Your task to perform on an android device: turn on improve location accuracy Image 0: 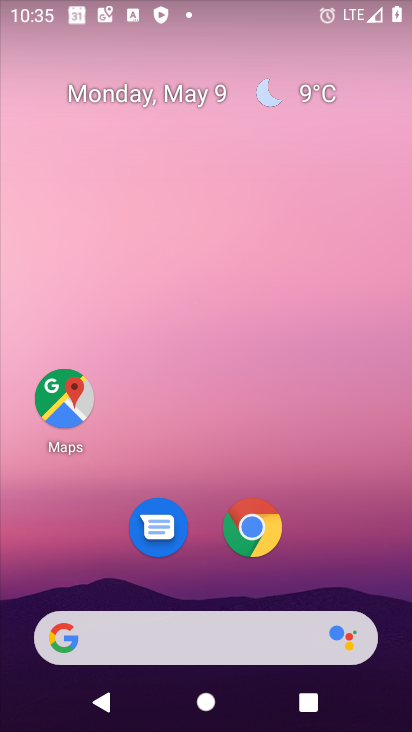
Step 0: drag from (395, 628) to (355, 188)
Your task to perform on an android device: turn on improve location accuracy Image 1: 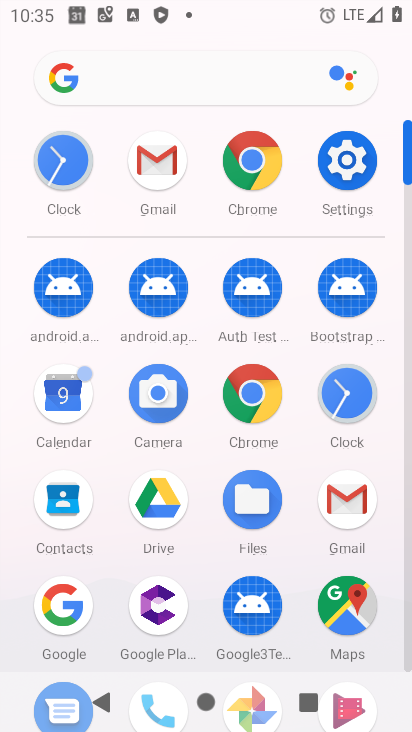
Step 1: click (405, 656)
Your task to perform on an android device: turn on improve location accuracy Image 2: 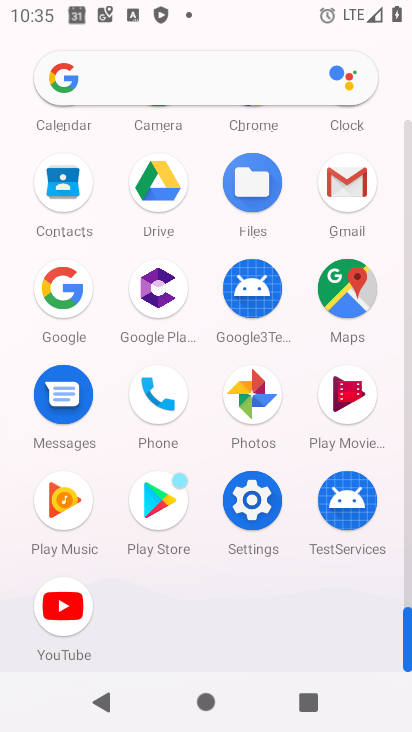
Step 2: click (253, 499)
Your task to perform on an android device: turn on improve location accuracy Image 3: 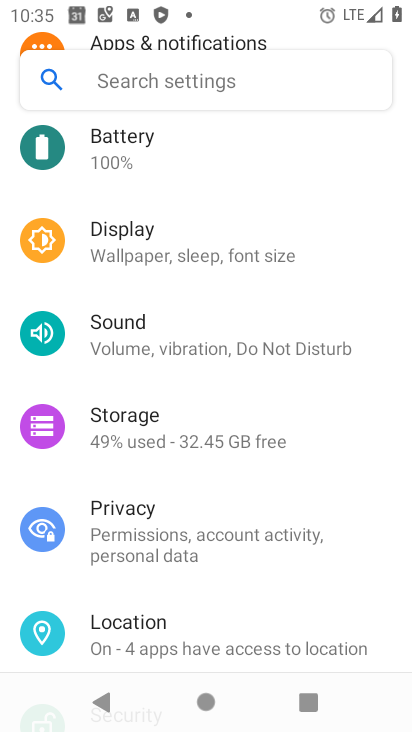
Step 3: drag from (342, 617) to (343, 241)
Your task to perform on an android device: turn on improve location accuracy Image 4: 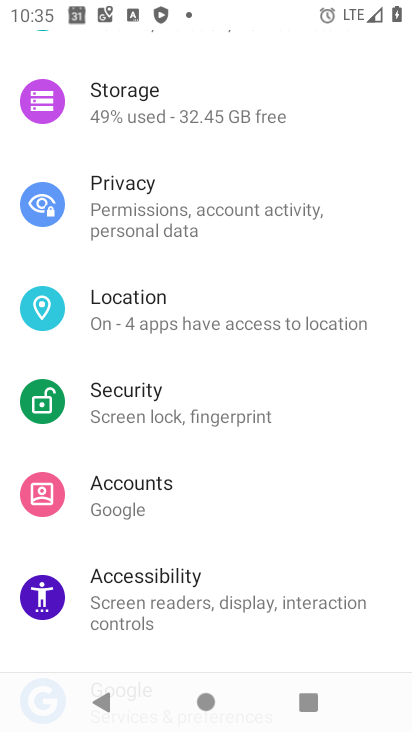
Step 4: click (131, 315)
Your task to perform on an android device: turn on improve location accuracy Image 5: 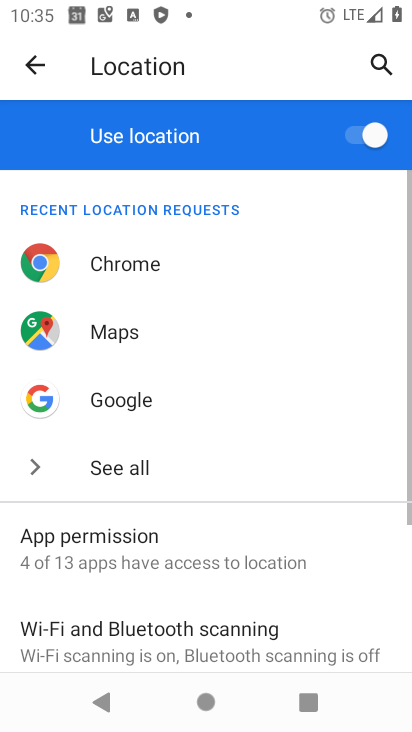
Step 5: drag from (296, 537) to (272, 245)
Your task to perform on an android device: turn on improve location accuracy Image 6: 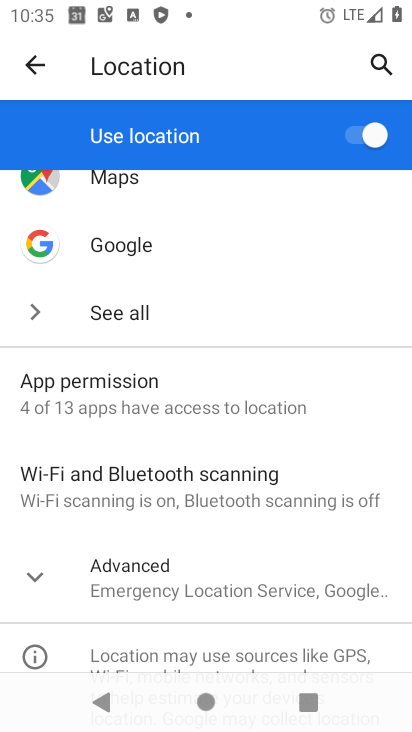
Step 6: click (28, 585)
Your task to perform on an android device: turn on improve location accuracy Image 7: 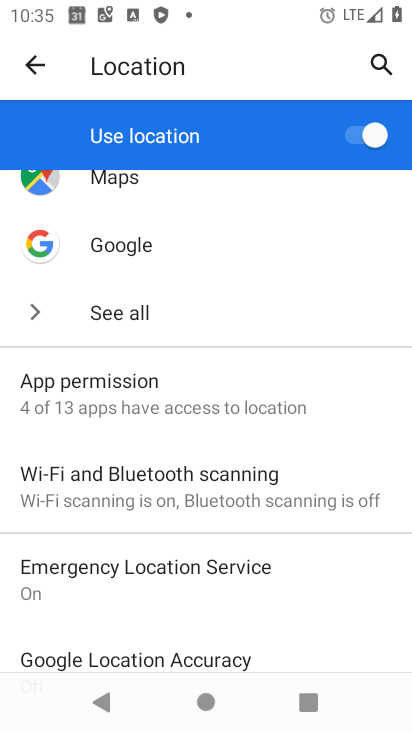
Step 7: drag from (320, 614) to (346, 216)
Your task to perform on an android device: turn on improve location accuracy Image 8: 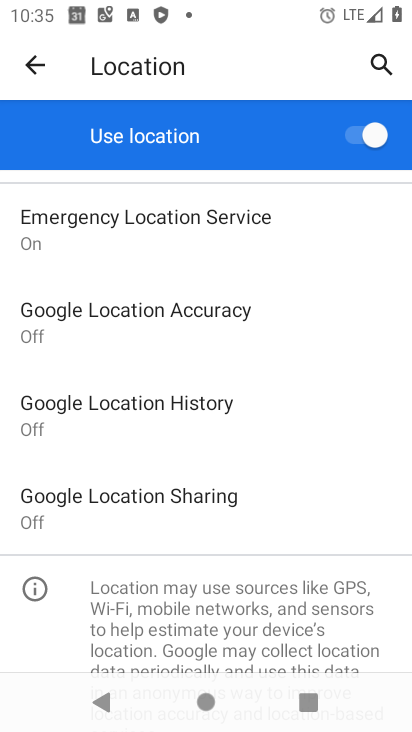
Step 8: click (41, 314)
Your task to perform on an android device: turn on improve location accuracy Image 9: 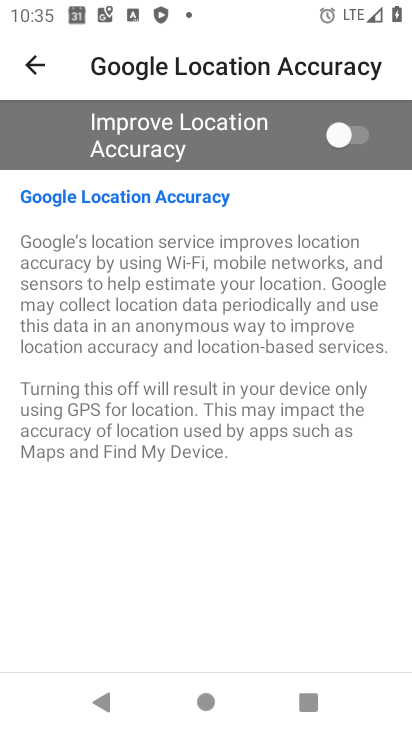
Step 9: click (359, 131)
Your task to perform on an android device: turn on improve location accuracy Image 10: 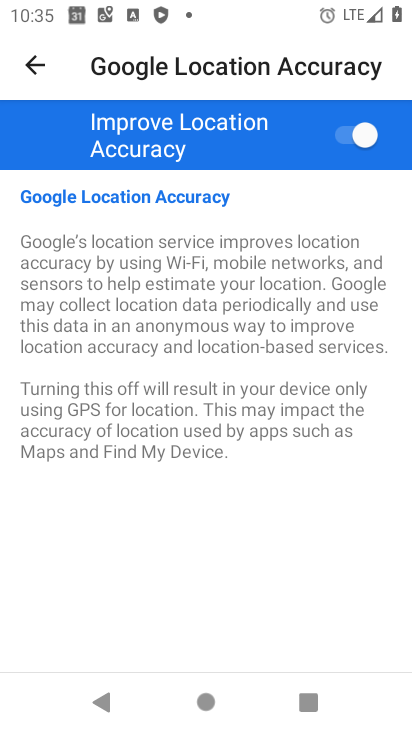
Step 10: task complete